Your task to perform on an android device: open the mobile data screen to see how much data has been used Image 0: 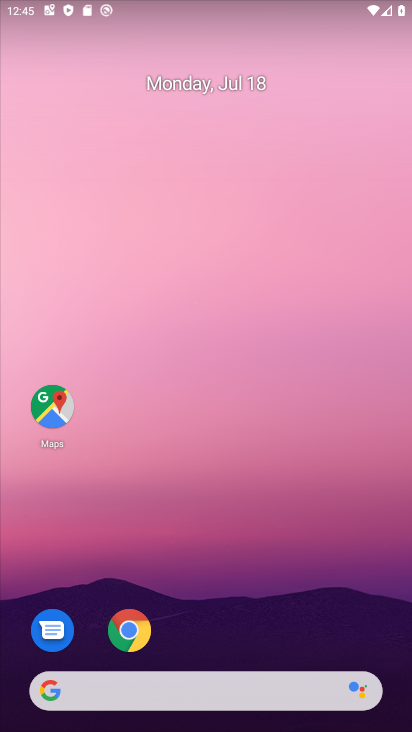
Step 0: drag from (279, 622) to (265, 146)
Your task to perform on an android device: open the mobile data screen to see how much data has been used Image 1: 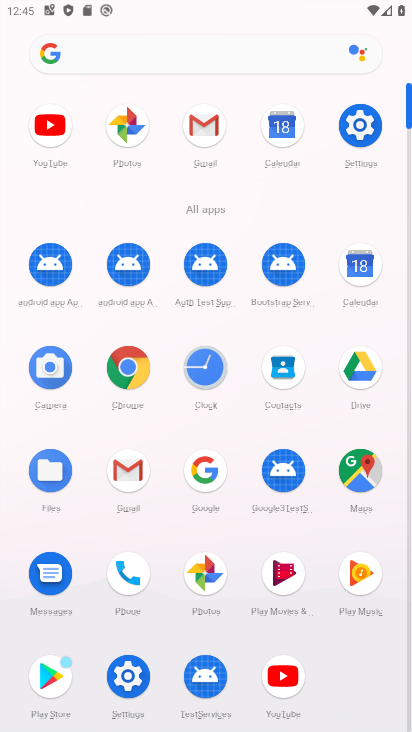
Step 1: click (356, 140)
Your task to perform on an android device: open the mobile data screen to see how much data has been used Image 2: 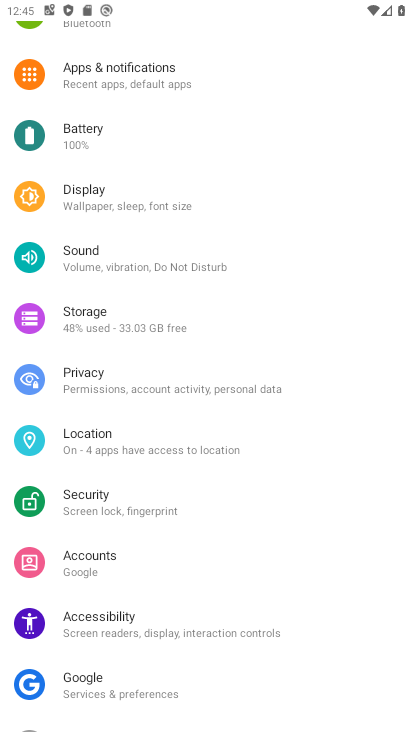
Step 2: drag from (196, 88) to (186, 581)
Your task to perform on an android device: open the mobile data screen to see how much data has been used Image 3: 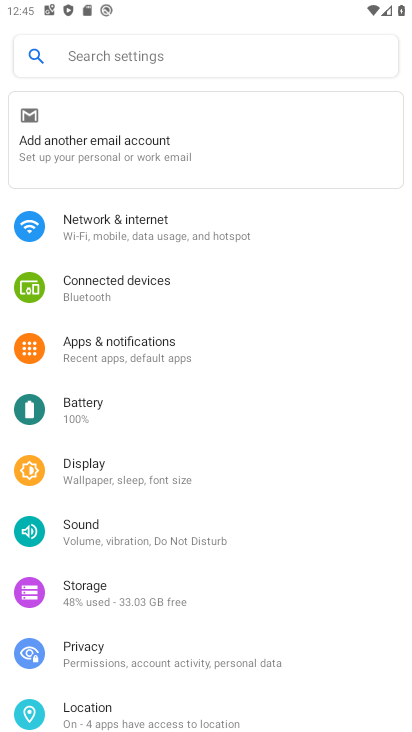
Step 3: click (125, 219)
Your task to perform on an android device: open the mobile data screen to see how much data has been used Image 4: 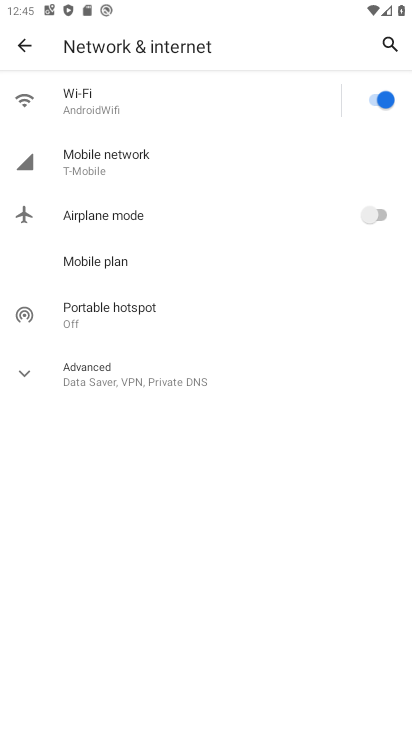
Step 4: click (139, 157)
Your task to perform on an android device: open the mobile data screen to see how much data has been used Image 5: 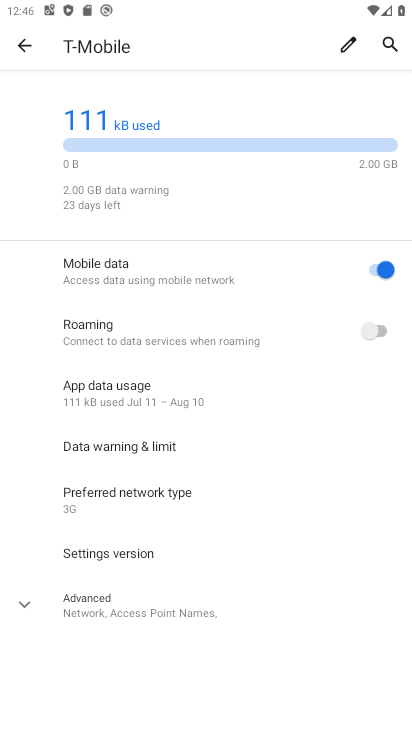
Step 5: task complete